Your task to perform on an android device: check out phone information Image 0: 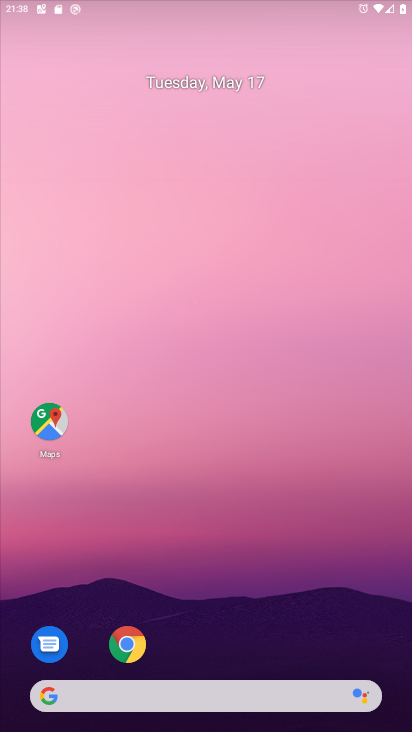
Step 0: press home button
Your task to perform on an android device: check out phone information Image 1: 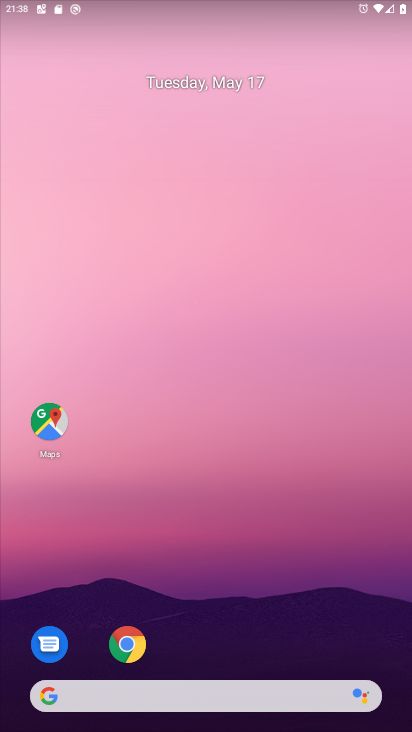
Step 1: drag from (197, 653) to (260, 70)
Your task to perform on an android device: check out phone information Image 2: 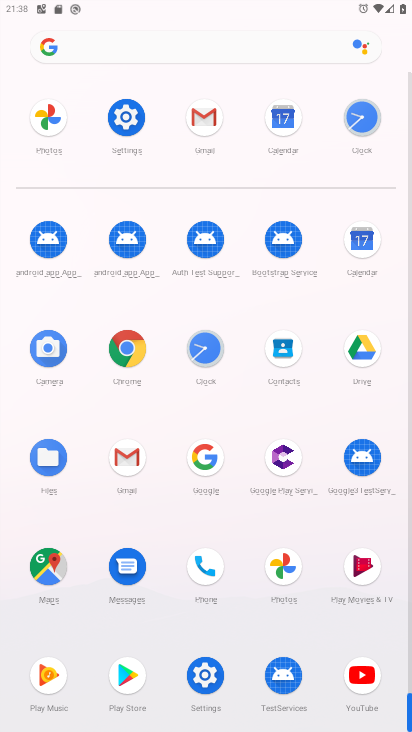
Step 2: click (210, 673)
Your task to perform on an android device: check out phone information Image 3: 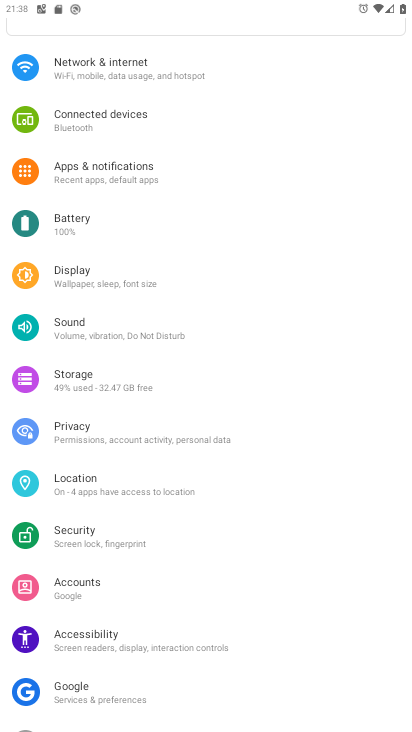
Step 3: drag from (137, 659) to (168, 184)
Your task to perform on an android device: check out phone information Image 4: 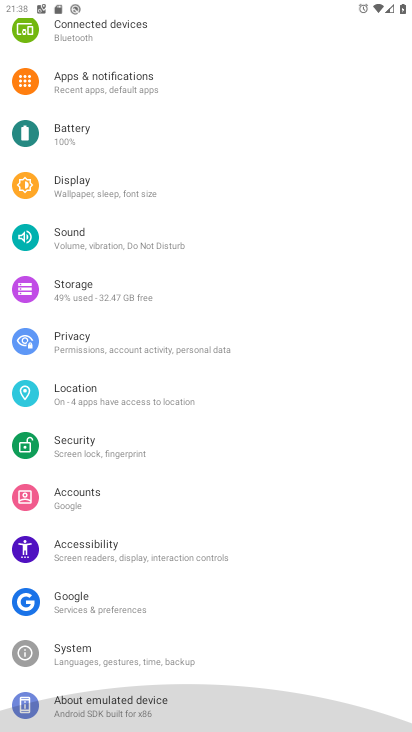
Step 4: click (168, 120)
Your task to perform on an android device: check out phone information Image 5: 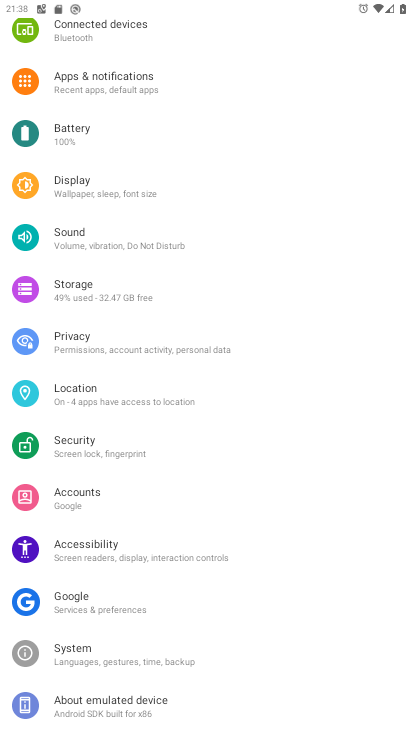
Step 5: task complete